Your task to perform on an android device: Open network settings Image 0: 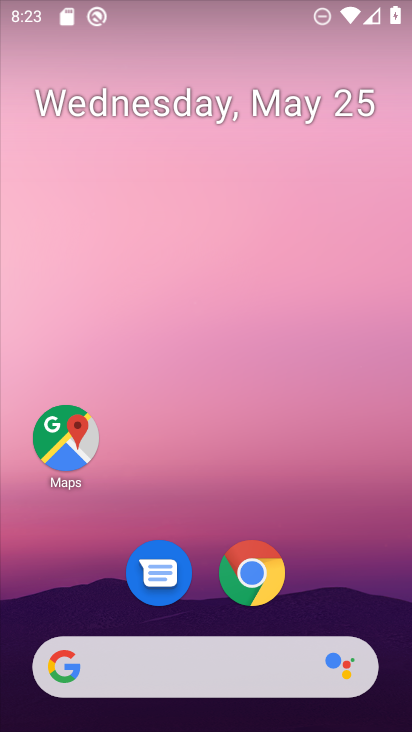
Step 0: drag from (401, 711) to (372, 165)
Your task to perform on an android device: Open network settings Image 1: 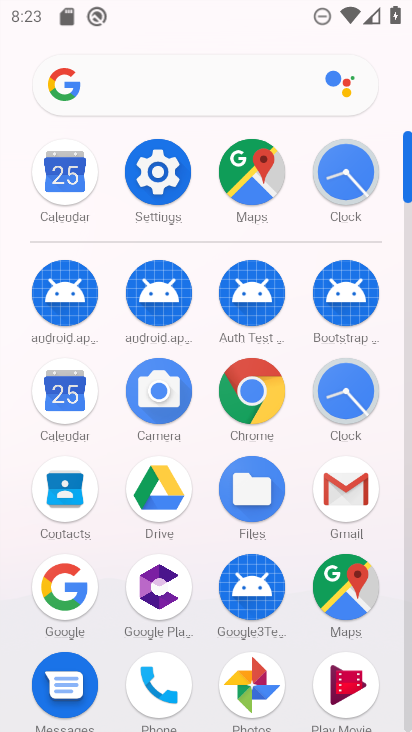
Step 1: click (155, 164)
Your task to perform on an android device: Open network settings Image 2: 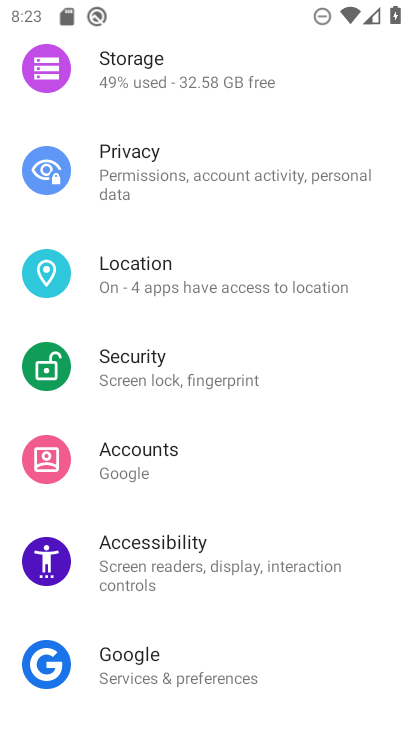
Step 2: drag from (267, 130) to (300, 552)
Your task to perform on an android device: Open network settings Image 3: 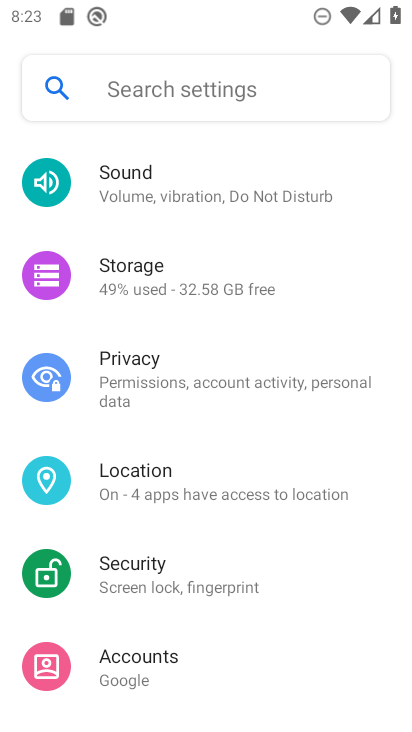
Step 3: drag from (310, 164) to (359, 599)
Your task to perform on an android device: Open network settings Image 4: 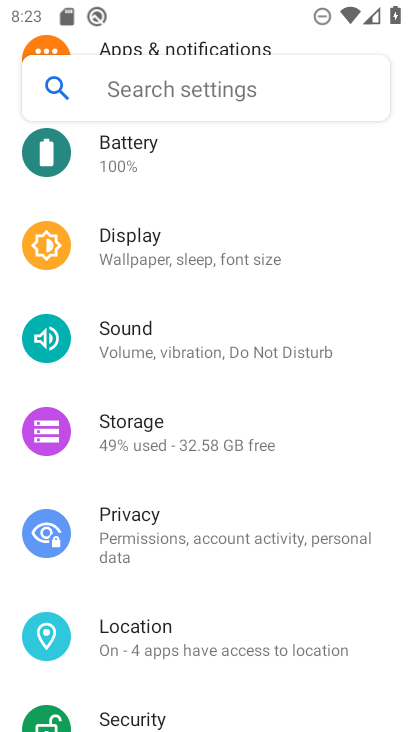
Step 4: drag from (306, 168) to (315, 606)
Your task to perform on an android device: Open network settings Image 5: 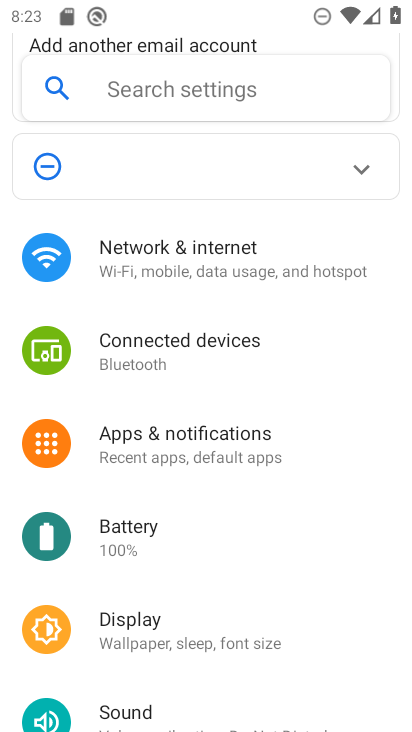
Step 5: click (158, 272)
Your task to perform on an android device: Open network settings Image 6: 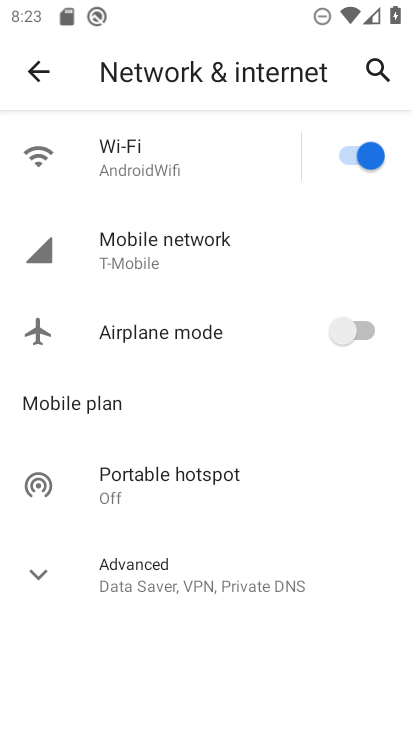
Step 6: click (158, 249)
Your task to perform on an android device: Open network settings Image 7: 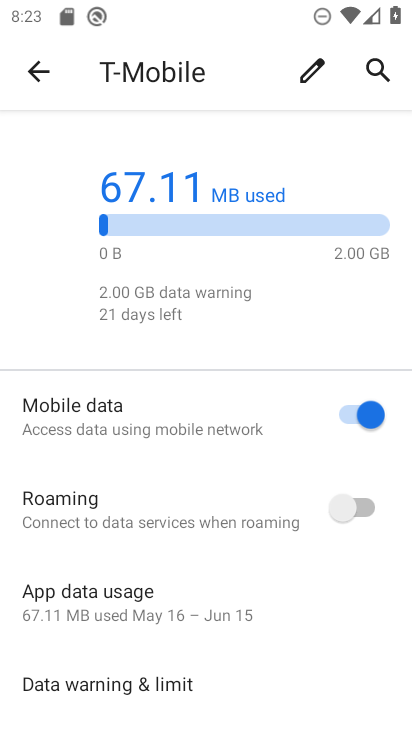
Step 7: drag from (235, 697) to (240, 160)
Your task to perform on an android device: Open network settings Image 8: 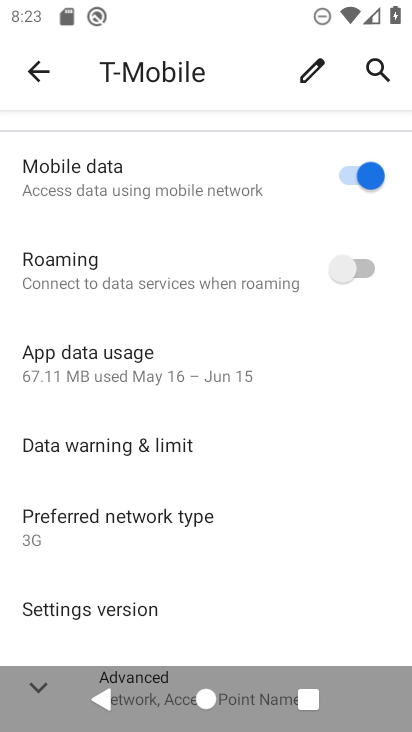
Step 8: drag from (244, 624) to (242, 265)
Your task to perform on an android device: Open network settings Image 9: 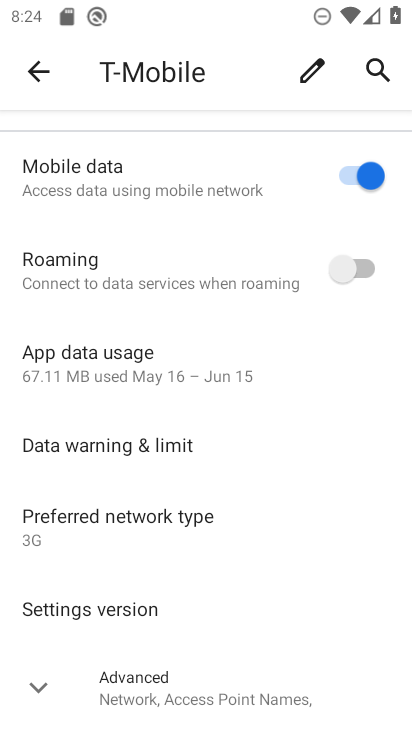
Step 9: click (40, 682)
Your task to perform on an android device: Open network settings Image 10: 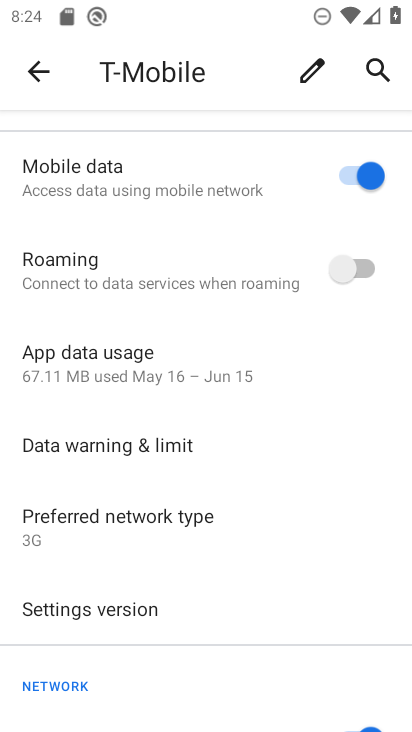
Step 10: task complete